Your task to perform on an android device: Open calendar and show me the third week of next month Image 0: 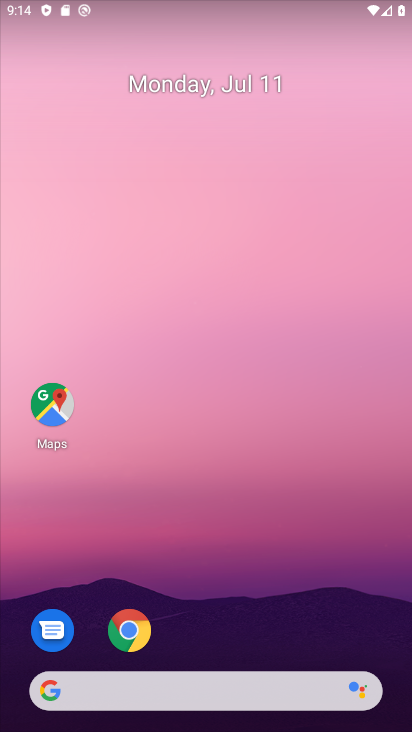
Step 0: drag from (250, 670) to (216, 118)
Your task to perform on an android device: Open calendar and show me the third week of next month Image 1: 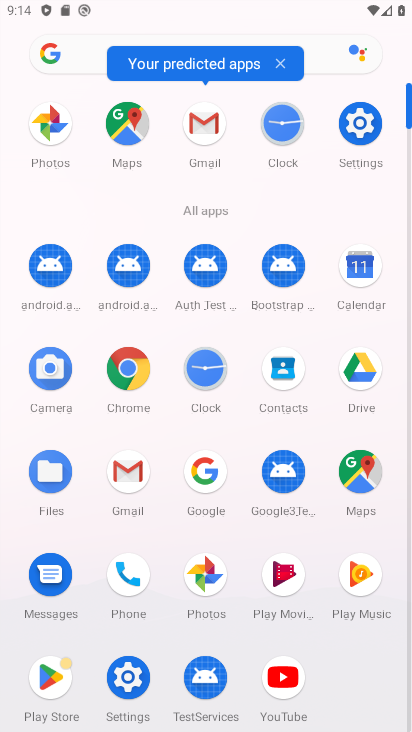
Step 1: click (356, 281)
Your task to perform on an android device: Open calendar and show me the third week of next month Image 2: 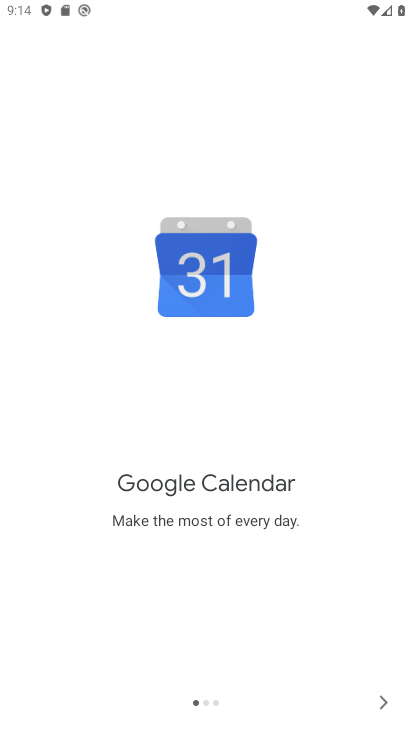
Step 2: click (385, 700)
Your task to perform on an android device: Open calendar and show me the third week of next month Image 3: 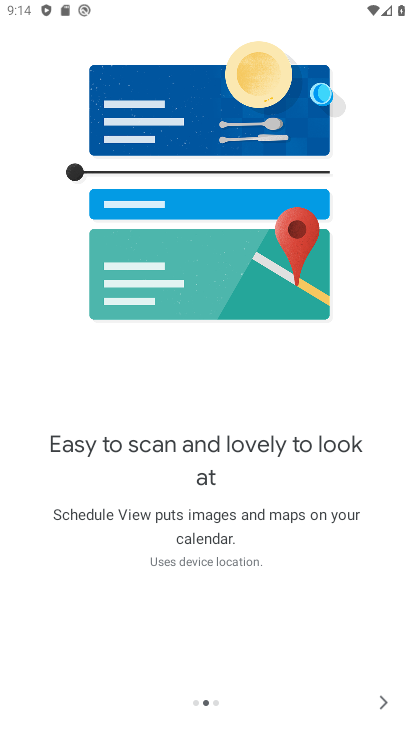
Step 3: click (385, 700)
Your task to perform on an android device: Open calendar and show me the third week of next month Image 4: 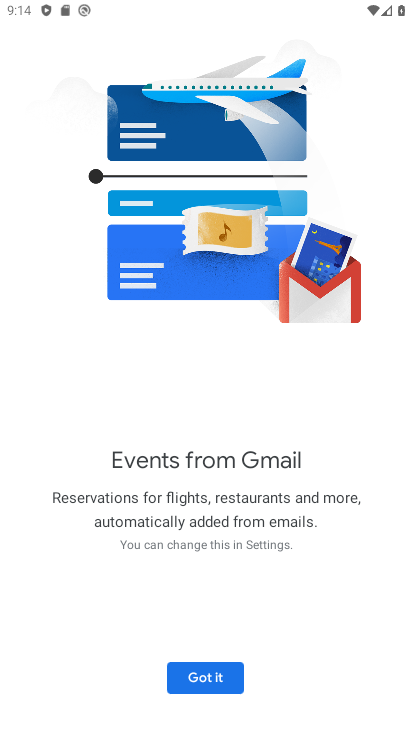
Step 4: click (176, 682)
Your task to perform on an android device: Open calendar and show me the third week of next month Image 5: 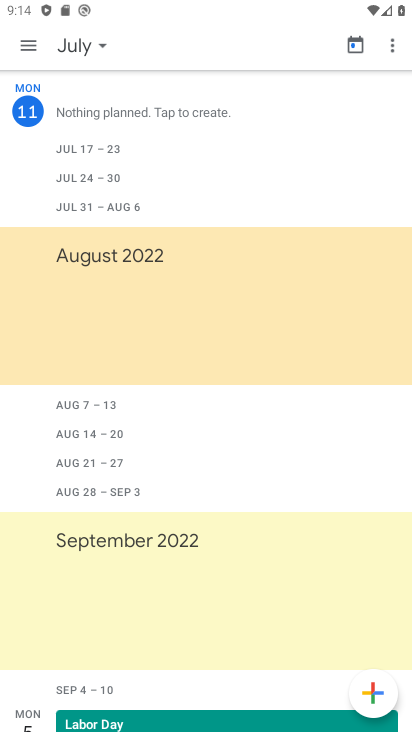
Step 5: click (89, 42)
Your task to perform on an android device: Open calendar and show me the third week of next month Image 6: 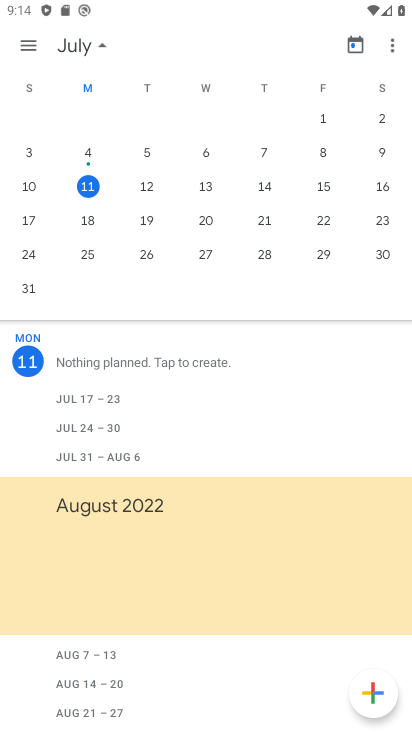
Step 6: drag from (227, 230) to (24, 311)
Your task to perform on an android device: Open calendar and show me the third week of next month Image 7: 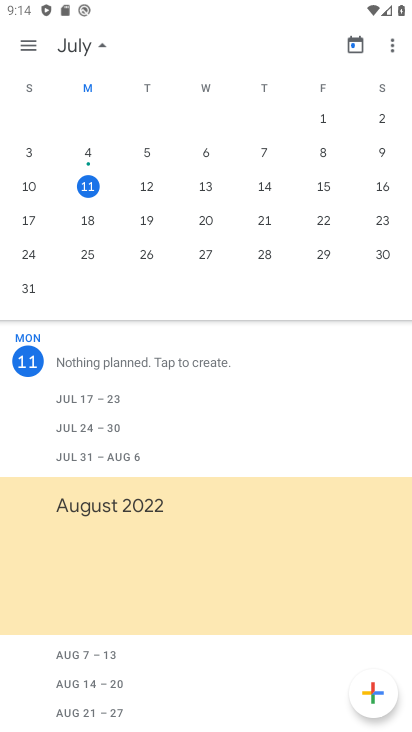
Step 7: drag from (364, 201) to (9, 235)
Your task to perform on an android device: Open calendar and show me the third week of next month Image 8: 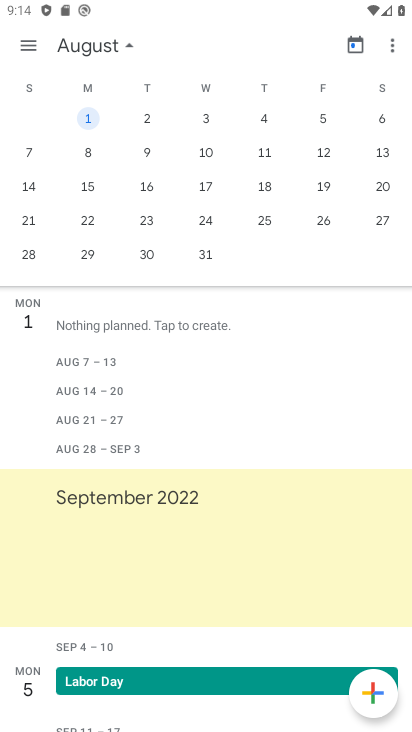
Step 8: click (309, 210)
Your task to perform on an android device: Open calendar and show me the third week of next month Image 9: 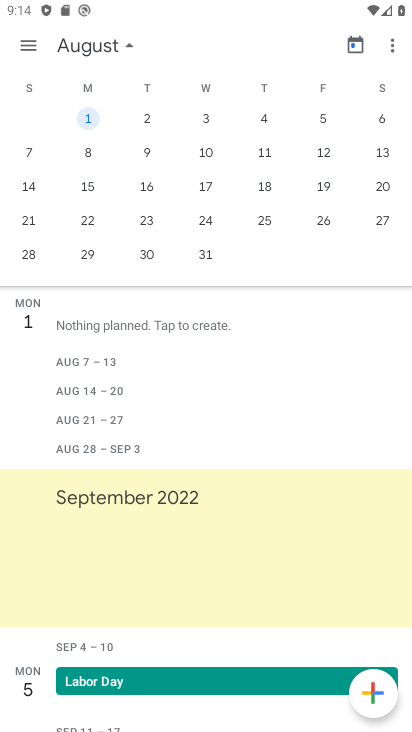
Step 9: click (28, 192)
Your task to perform on an android device: Open calendar and show me the third week of next month Image 10: 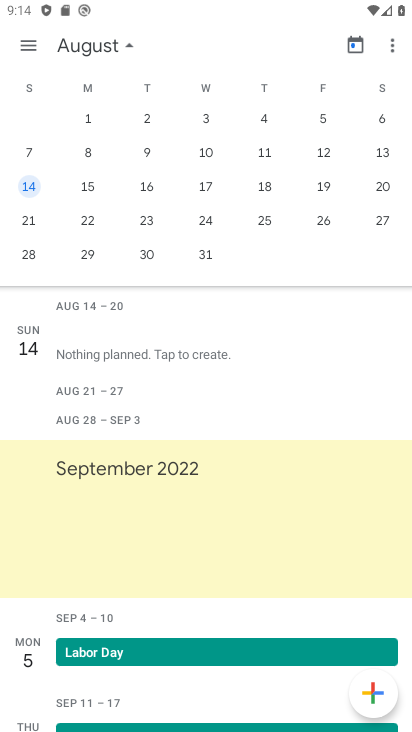
Step 10: task complete